Your task to perform on an android device: Open Yahoo.com Image 0: 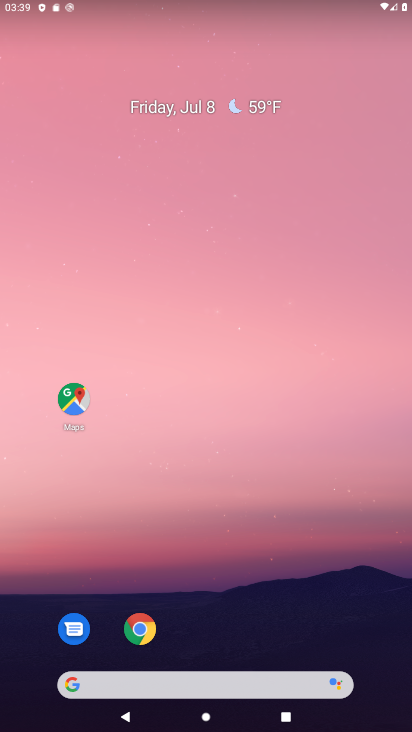
Step 0: click (140, 626)
Your task to perform on an android device: Open Yahoo.com Image 1: 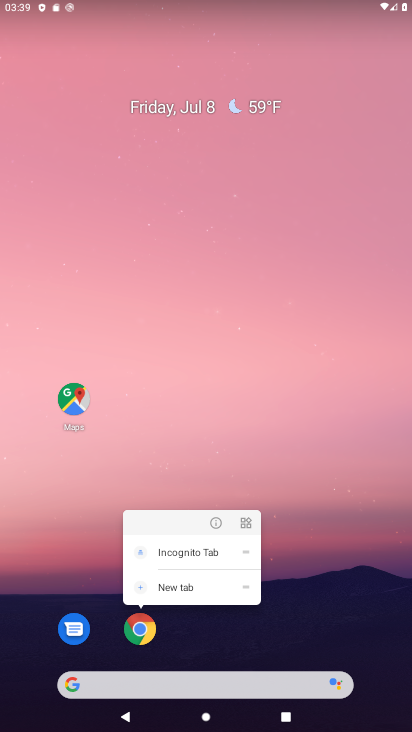
Step 1: click (140, 626)
Your task to perform on an android device: Open Yahoo.com Image 2: 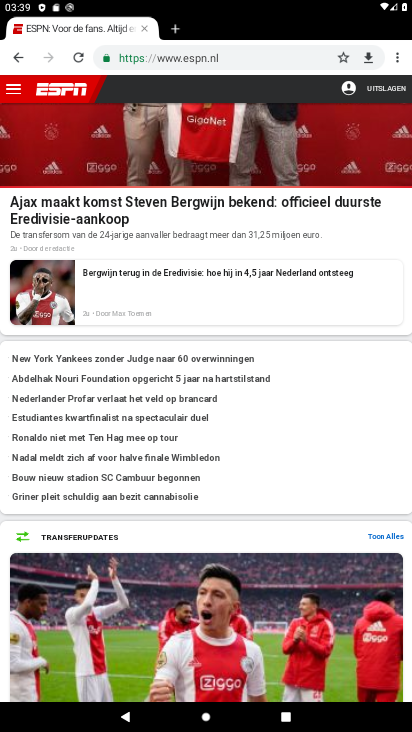
Step 2: click (177, 31)
Your task to perform on an android device: Open Yahoo.com Image 3: 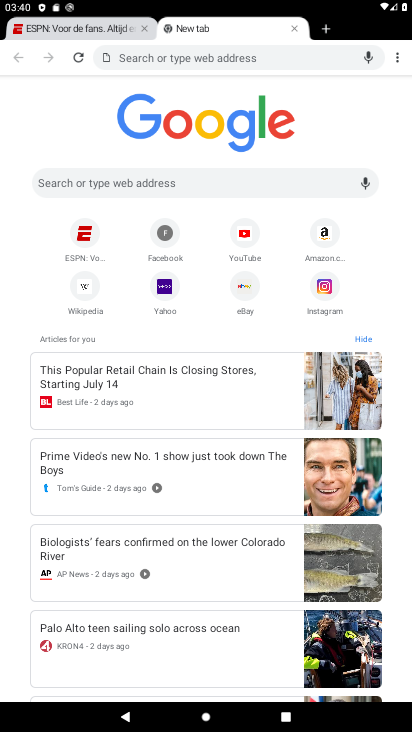
Step 3: click (161, 284)
Your task to perform on an android device: Open Yahoo.com Image 4: 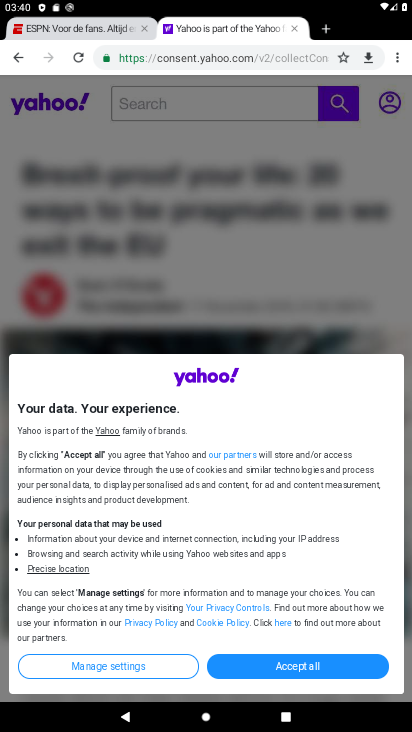
Step 4: click (295, 661)
Your task to perform on an android device: Open Yahoo.com Image 5: 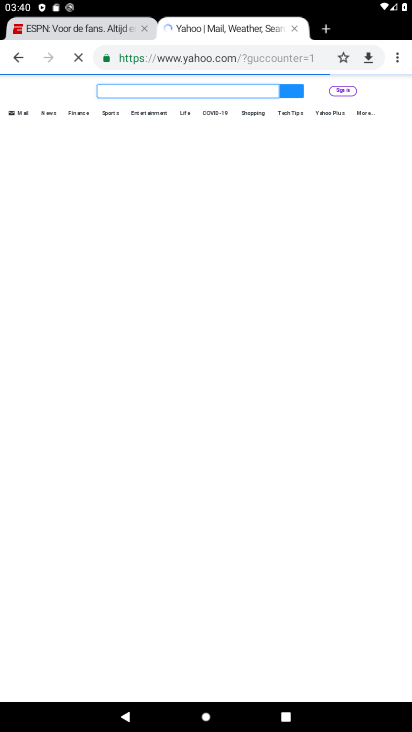
Step 5: task complete